Your task to perform on an android device: Open Yahoo.com Image 0: 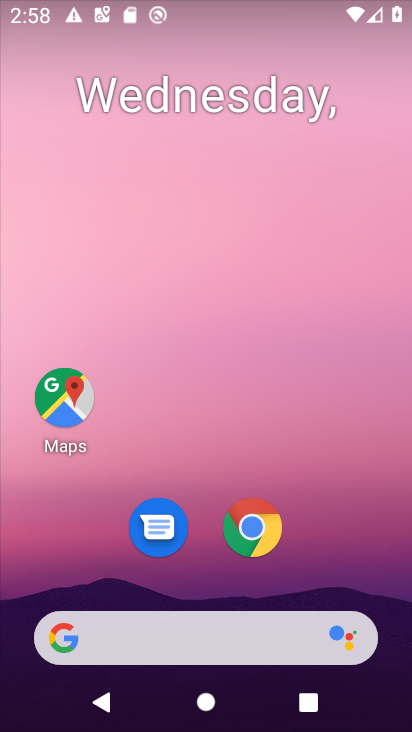
Step 0: drag from (329, 557) to (339, 19)
Your task to perform on an android device: Open Yahoo.com Image 1: 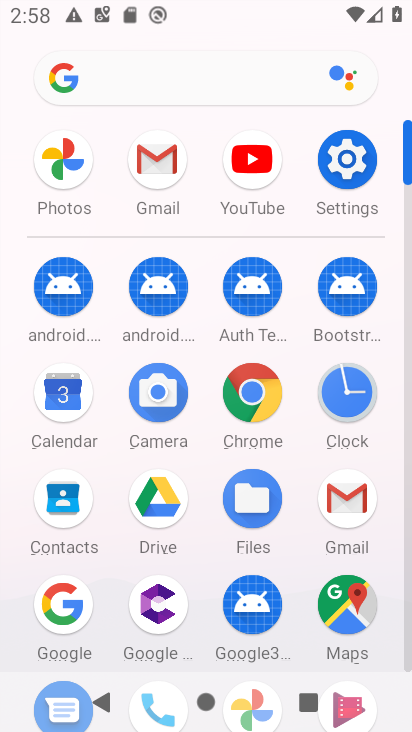
Step 1: click (255, 397)
Your task to perform on an android device: Open Yahoo.com Image 2: 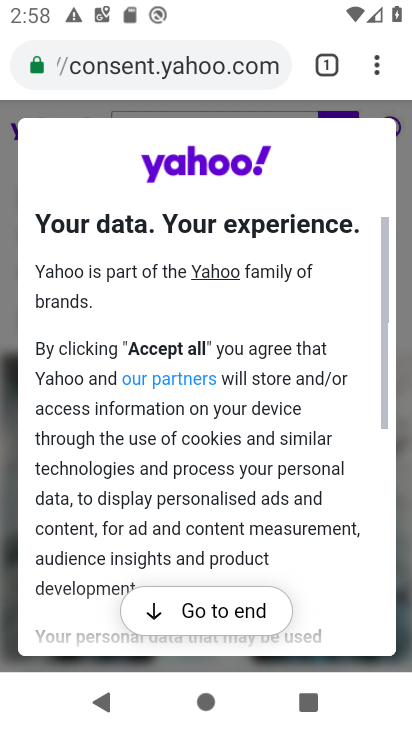
Step 2: task complete